Your task to perform on an android device: Search for a new nail polish Image 0: 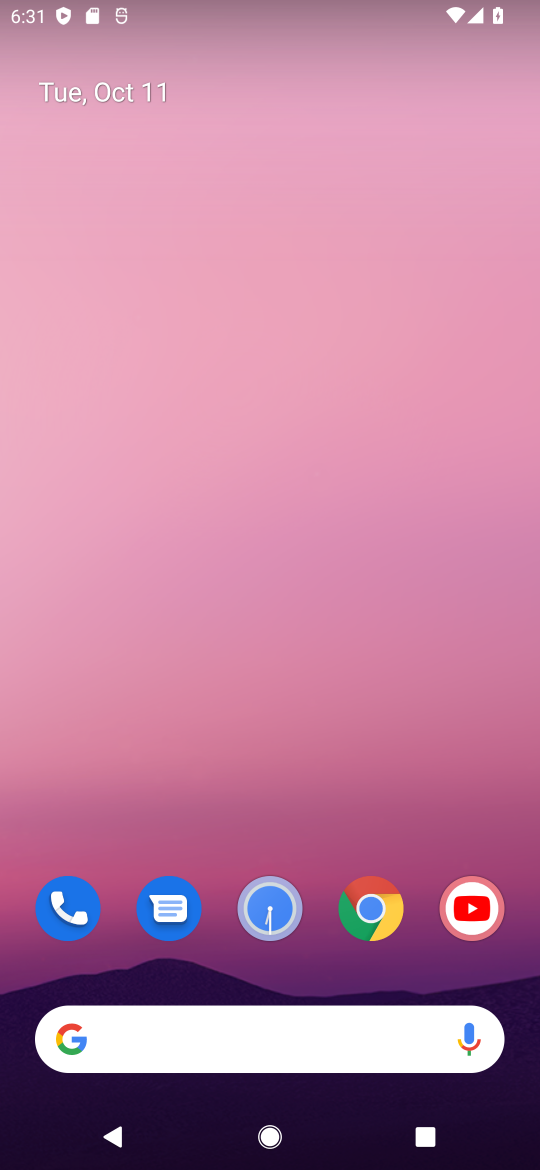
Step 0: click (237, 1057)
Your task to perform on an android device: Search for a new nail polish Image 1: 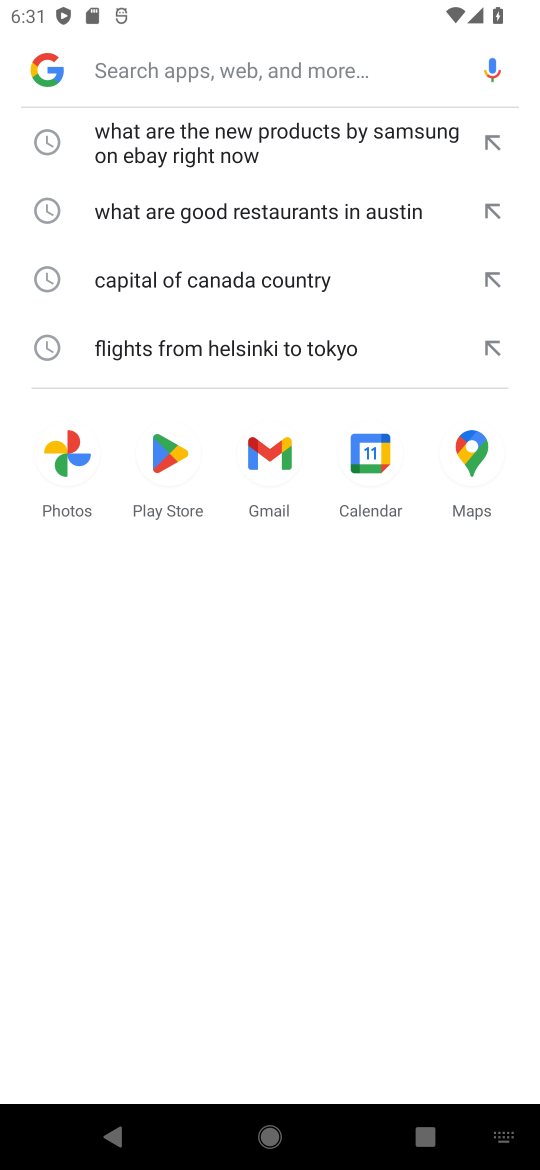
Step 1: click (274, 1040)
Your task to perform on an android device: Search for a new nail polish Image 2: 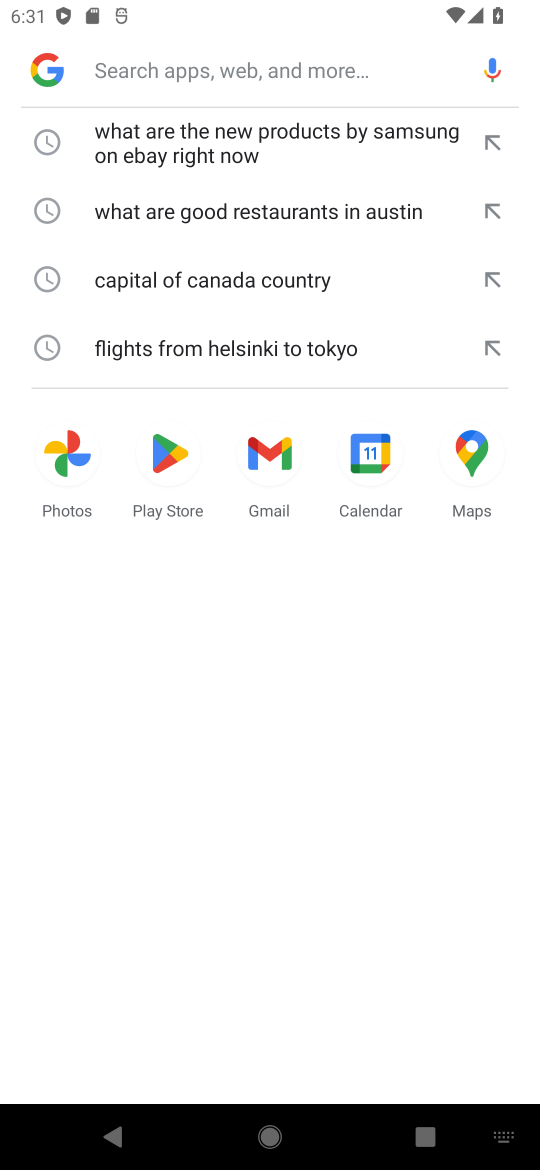
Step 2: type "new nail polish"
Your task to perform on an android device: Search for a new nail polish Image 3: 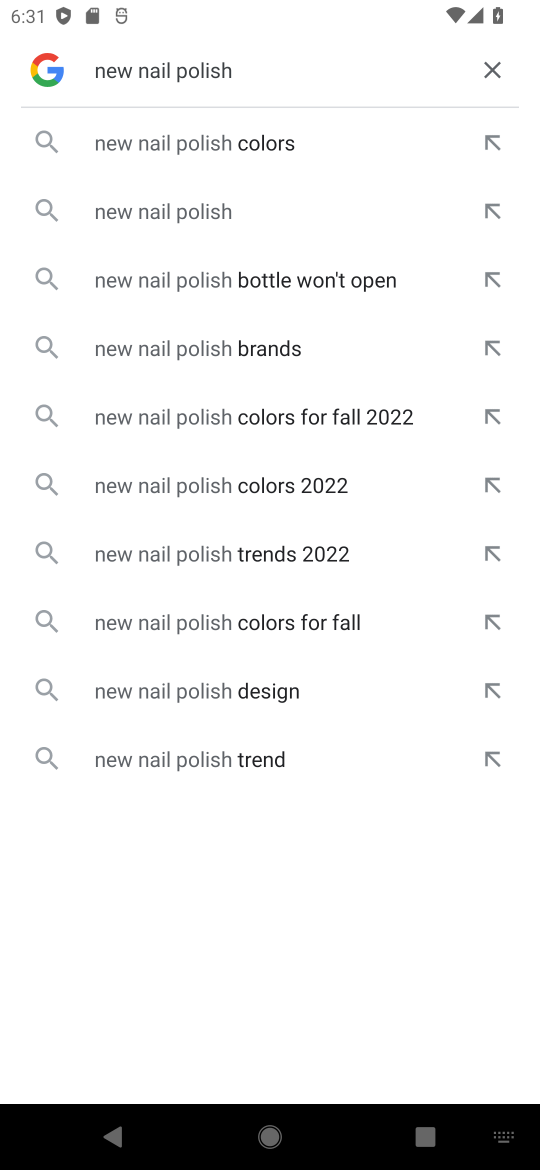
Step 3: click (199, 210)
Your task to perform on an android device: Search for a new nail polish Image 4: 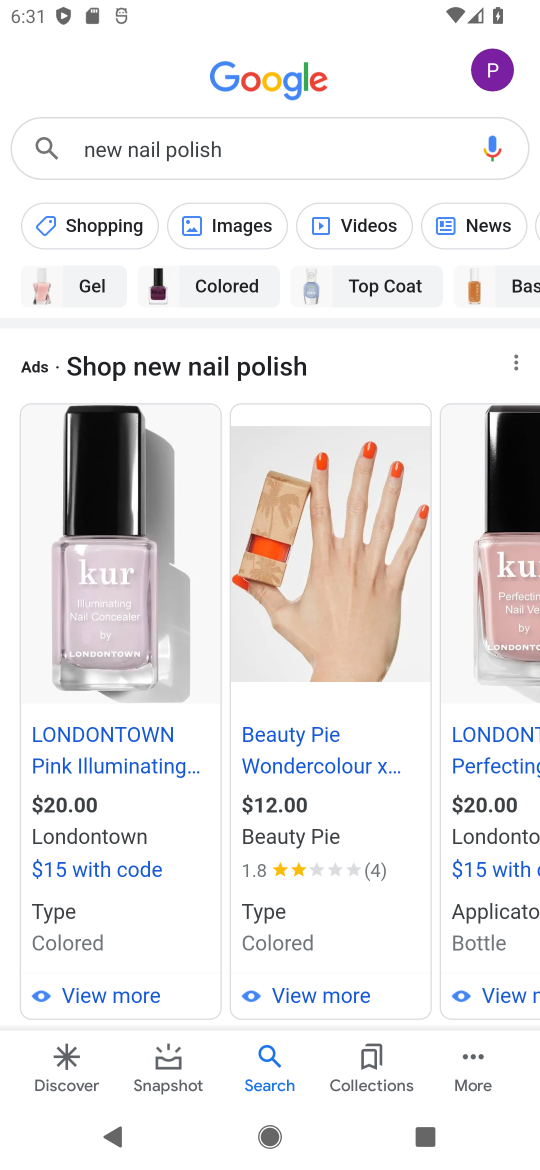
Step 4: task complete